Your task to perform on an android device: Open Yahoo.com Image 0: 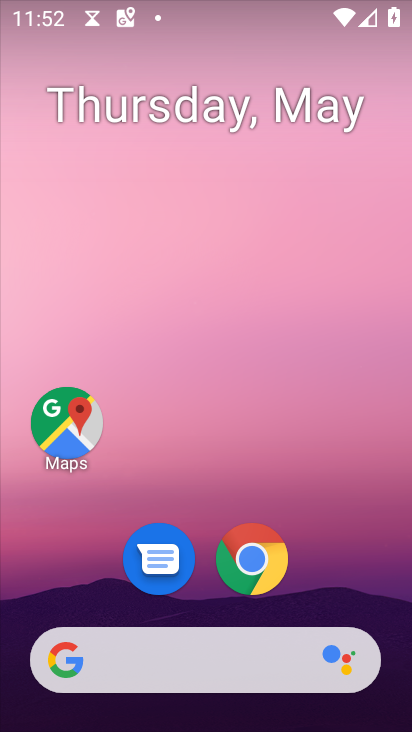
Step 0: click (261, 559)
Your task to perform on an android device: Open Yahoo.com Image 1: 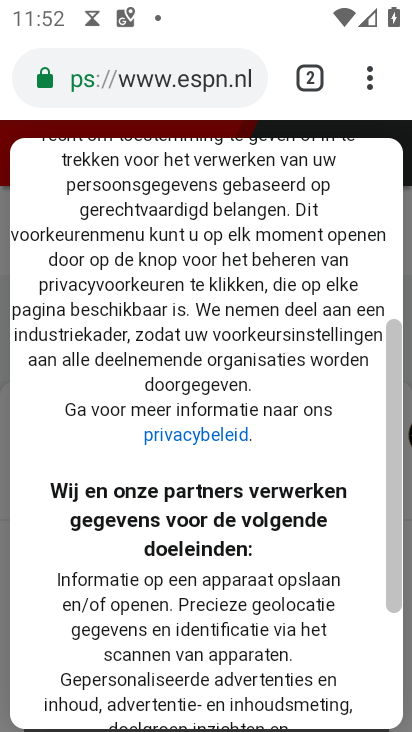
Step 1: click (371, 89)
Your task to perform on an android device: Open Yahoo.com Image 2: 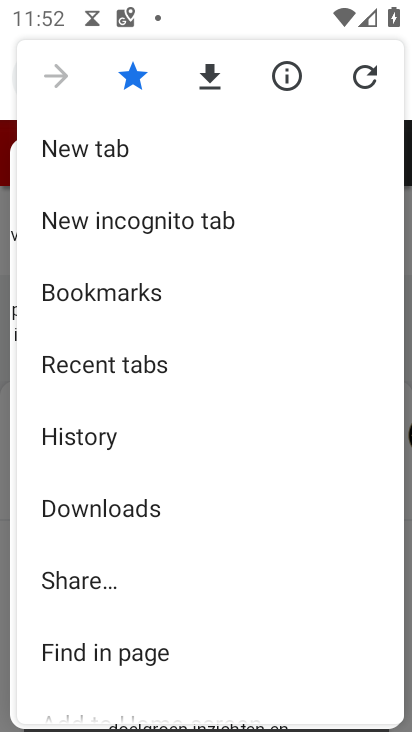
Step 2: click (92, 150)
Your task to perform on an android device: Open Yahoo.com Image 3: 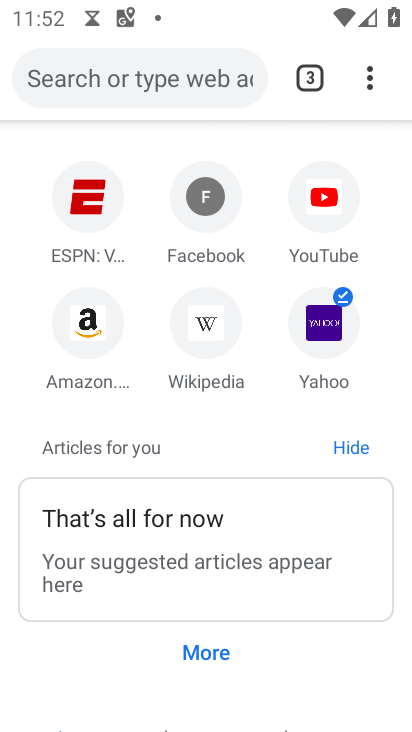
Step 3: click (328, 307)
Your task to perform on an android device: Open Yahoo.com Image 4: 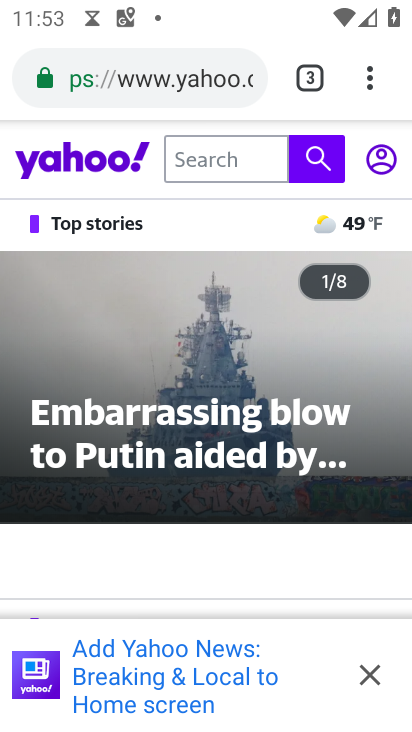
Step 4: task complete